Your task to perform on an android device: Open Youtube and go to the subscriptions tab Image 0: 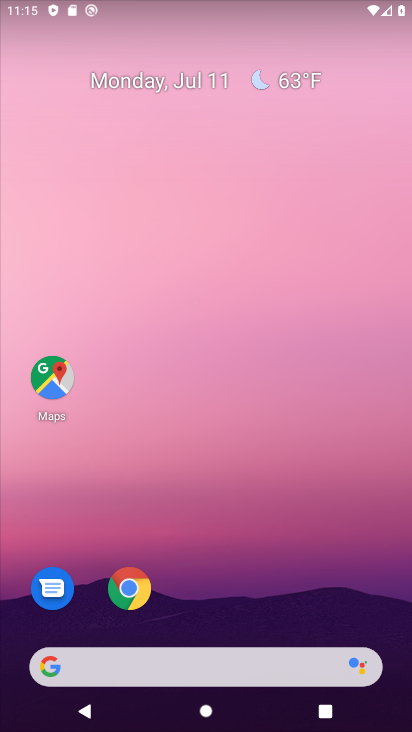
Step 0: drag from (253, 677) to (248, 146)
Your task to perform on an android device: Open Youtube and go to the subscriptions tab Image 1: 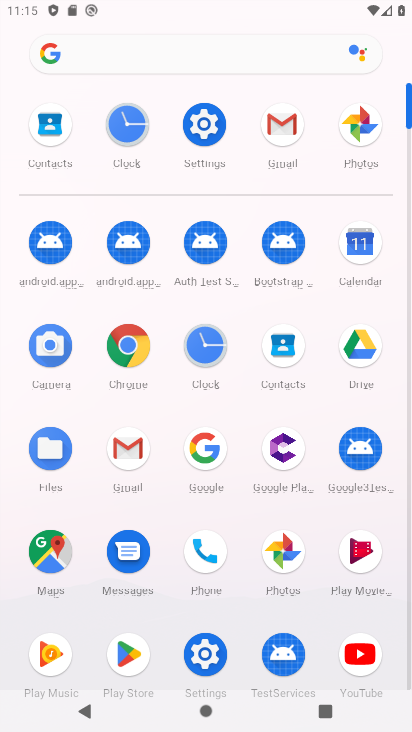
Step 1: click (365, 648)
Your task to perform on an android device: Open Youtube and go to the subscriptions tab Image 2: 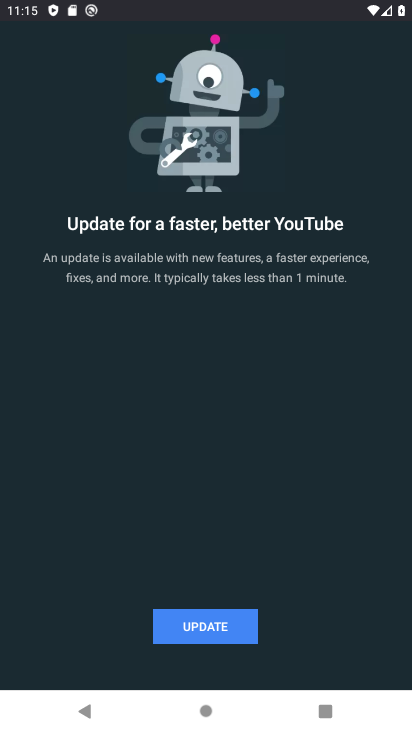
Step 2: task complete